Your task to perform on an android device: Open Google Image 0: 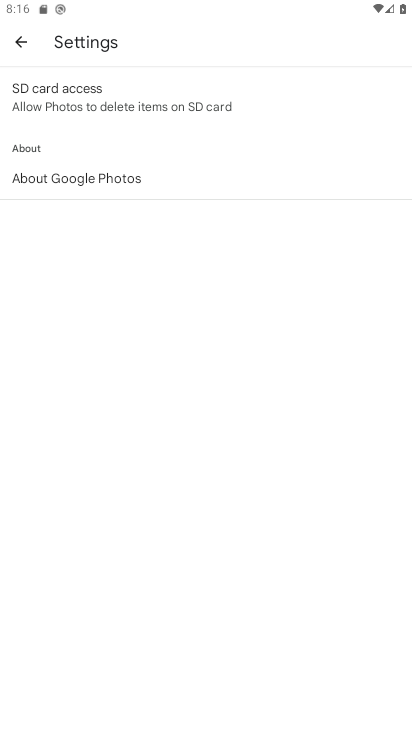
Step 0: click (12, 53)
Your task to perform on an android device: Open Google Image 1: 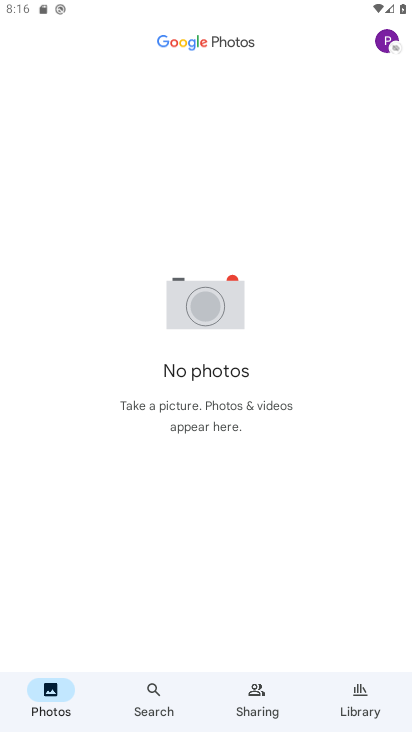
Step 1: press home button
Your task to perform on an android device: Open Google Image 2: 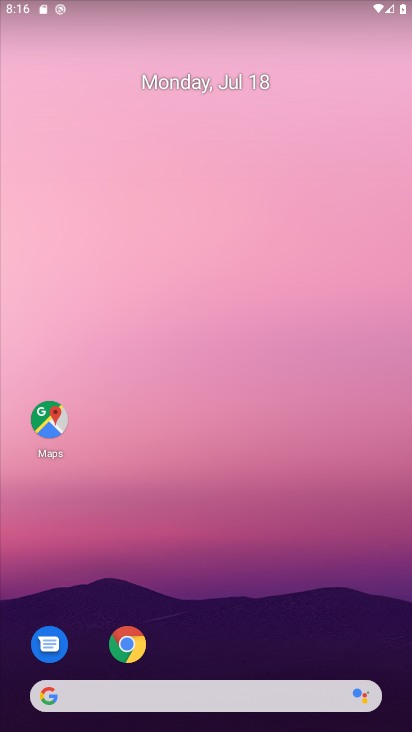
Step 2: click (204, 691)
Your task to perform on an android device: Open Google Image 3: 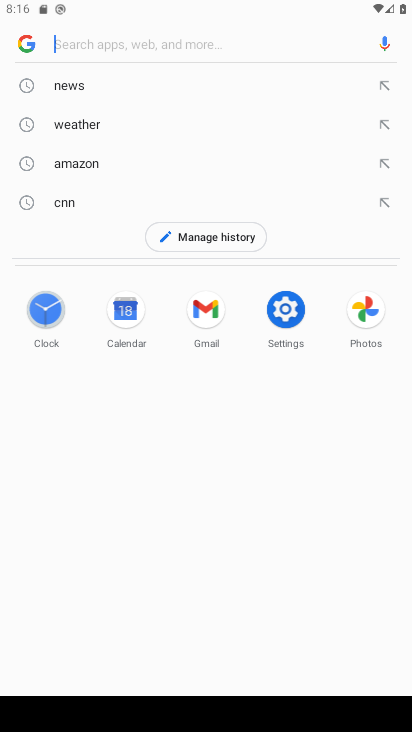
Step 3: type "google.com"
Your task to perform on an android device: Open Google Image 4: 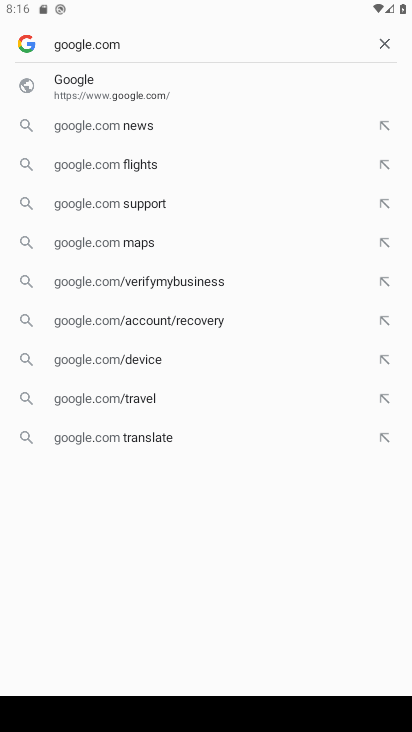
Step 4: click (120, 87)
Your task to perform on an android device: Open Google Image 5: 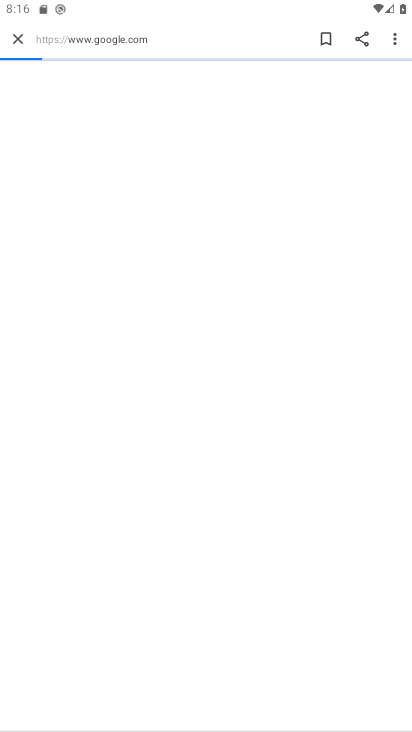
Step 5: task complete